Your task to perform on an android device: turn on wifi Image 0: 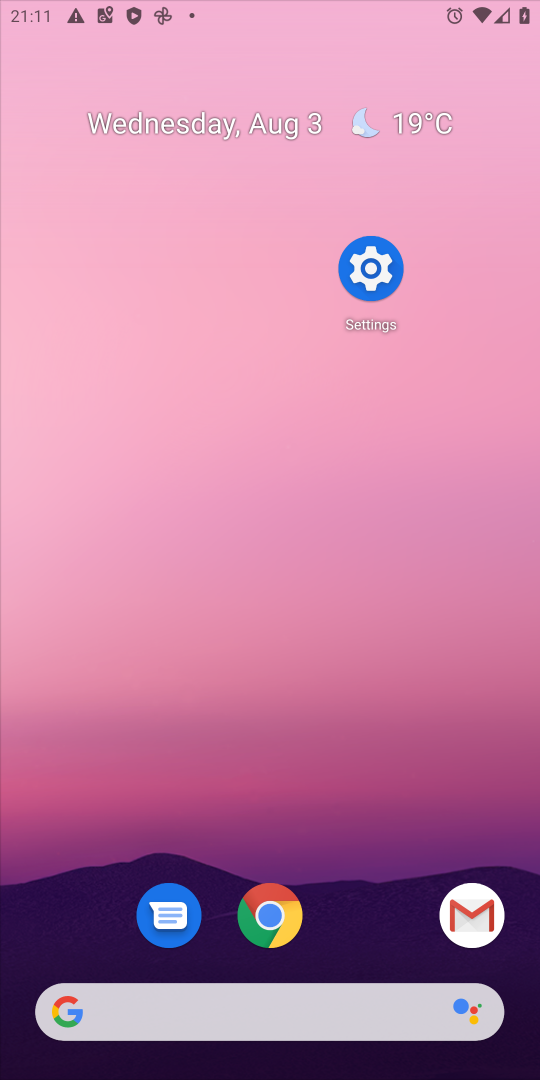
Step 0: press home button
Your task to perform on an android device: turn on wifi Image 1: 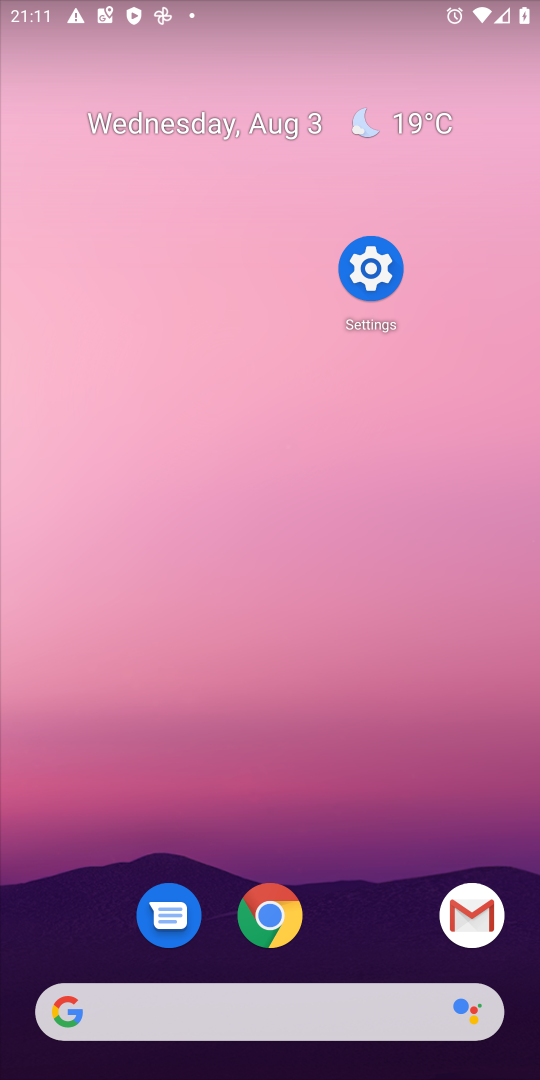
Step 1: drag from (343, 934) to (260, 300)
Your task to perform on an android device: turn on wifi Image 2: 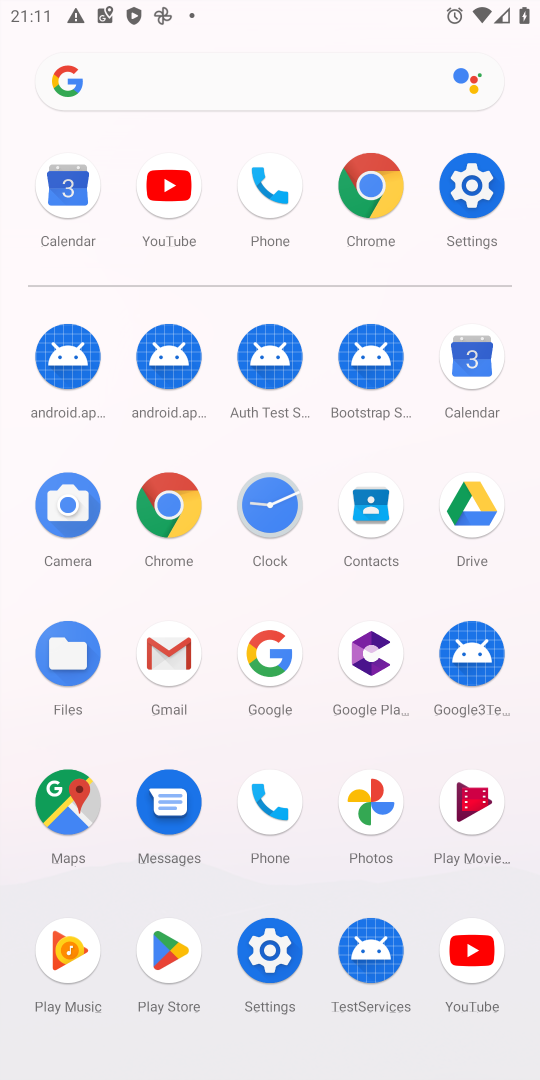
Step 2: click (485, 158)
Your task to perform on an android device: turn on wifi Image 3: 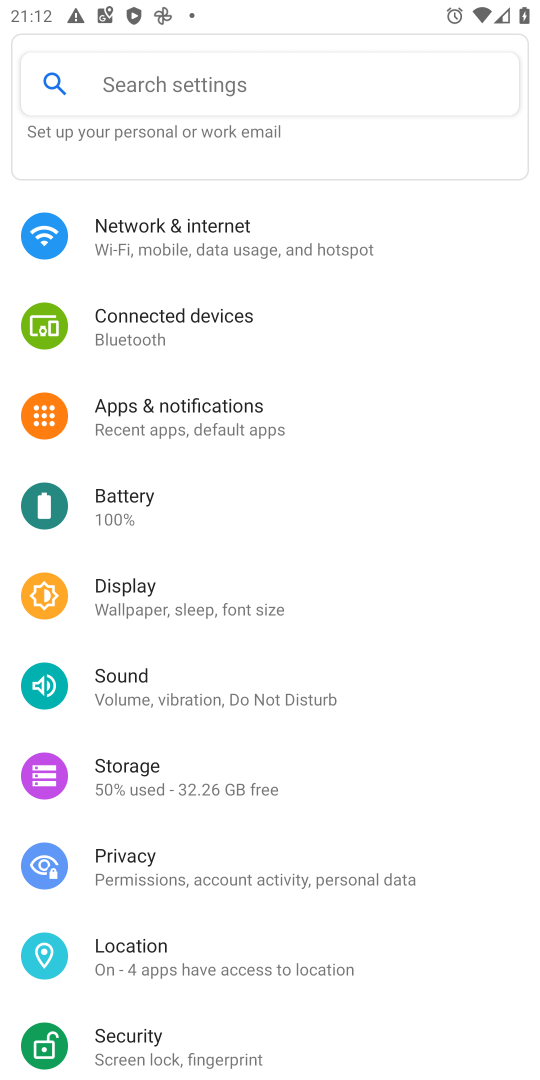
Step 3: click (173, 234)
Your task to perform on an android device: turn on wifi Image 4: 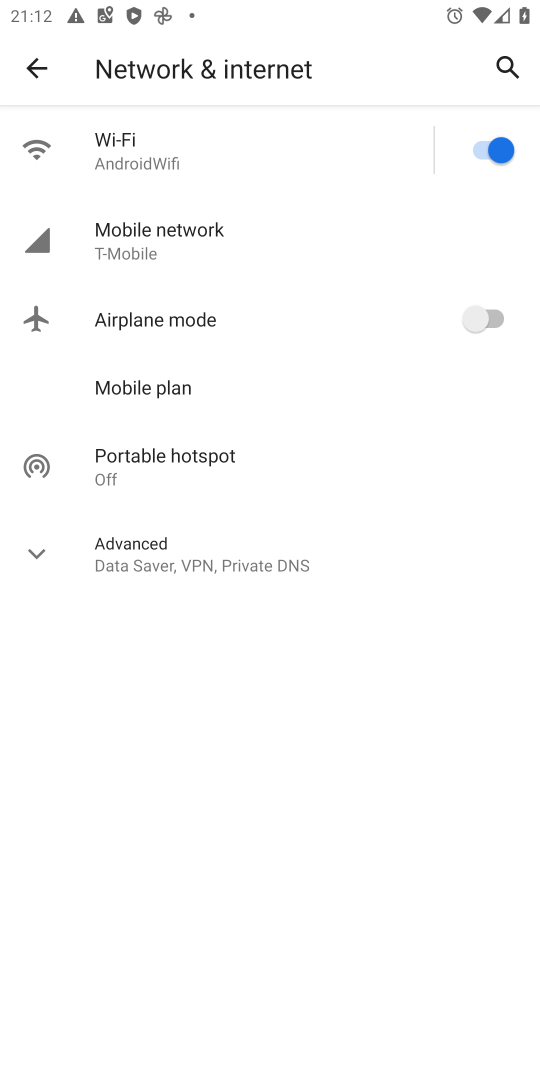
Step 4: task complete